Your task to perform on an android device: Open battery settings Image 0: 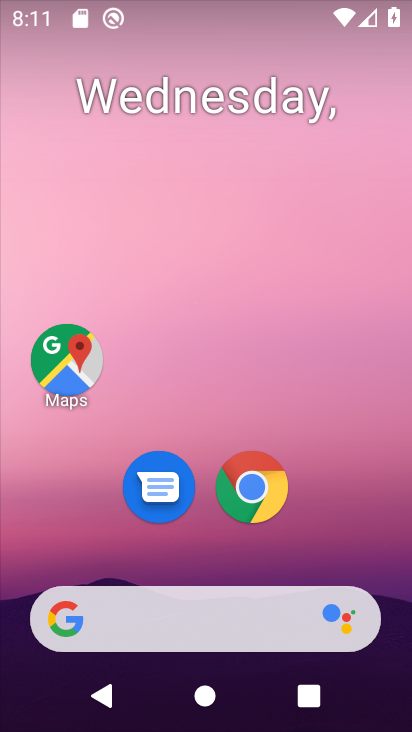
Step 0: drag from (333, 534) to (246, 112)
Your task to perform on an android device: Open battery settings Image 1: 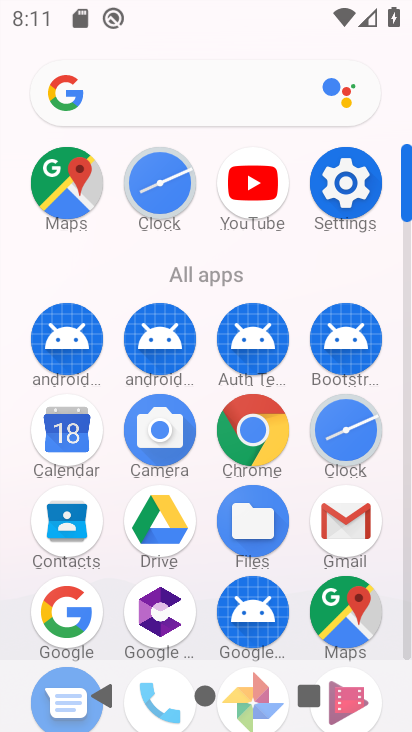
Step 1: click (346, 182)
Your task to perform on an android device: Open battery settings Image 2: 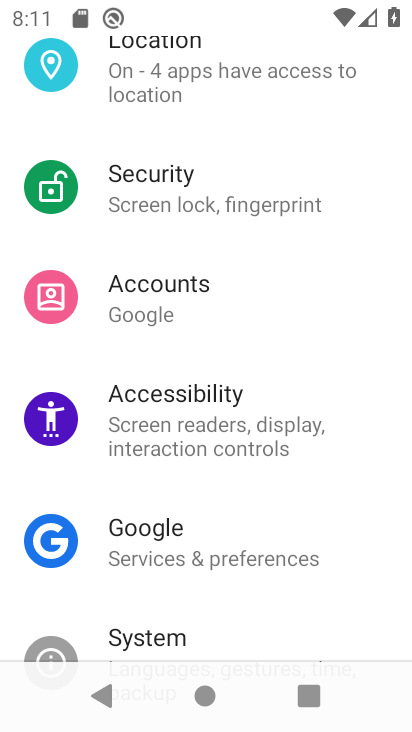
Step 2: drag from (250, 247) to (242, 357)
Your task to perform on an android device: Open battery settings Image 3: 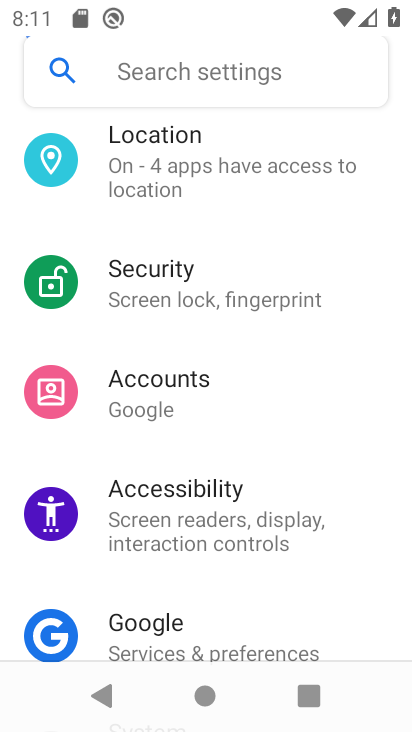
Step 3: drag from (231, 229) to (237, 348)
Your task to perform on an android device: Open battery settings Image 4: 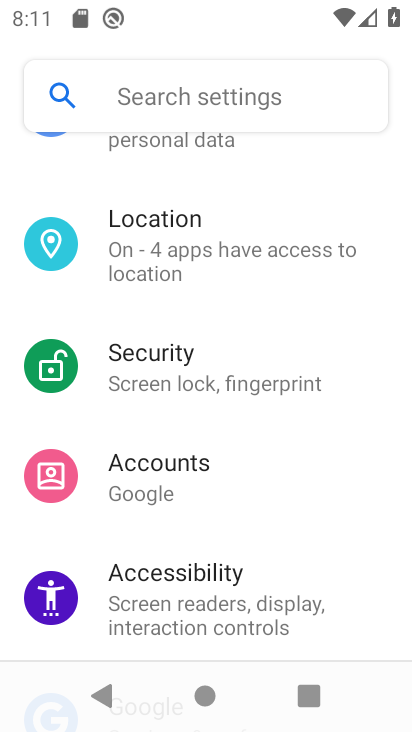
Step 4: drag from (276, 184) to (323, 368)
Your task to perform on an android device: Open battery settings Image 5: 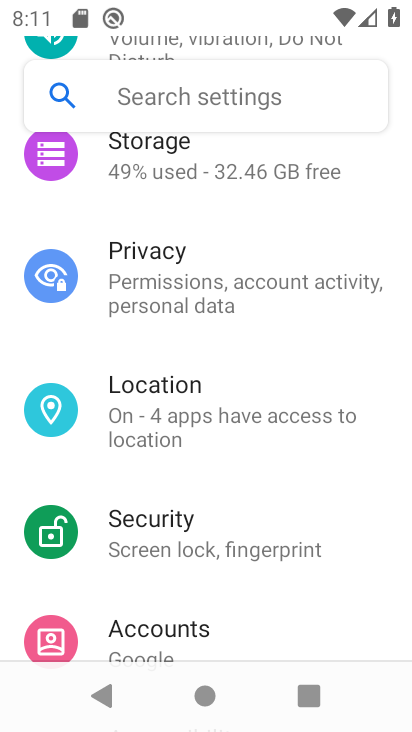
Step 5: drag from (255, 246) to (244, 360)
Your task to perform on an android device: Open battery settings Image 6: 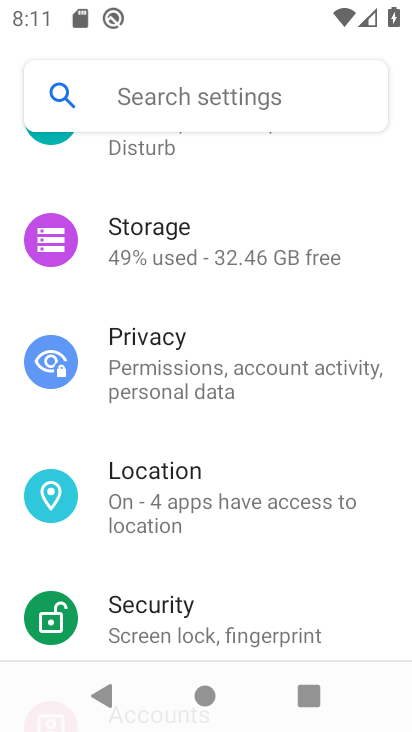
Step 6: drag from (233, 203) to (261, 398)
Your task to perform on an android device: Open battery settings Image 7: 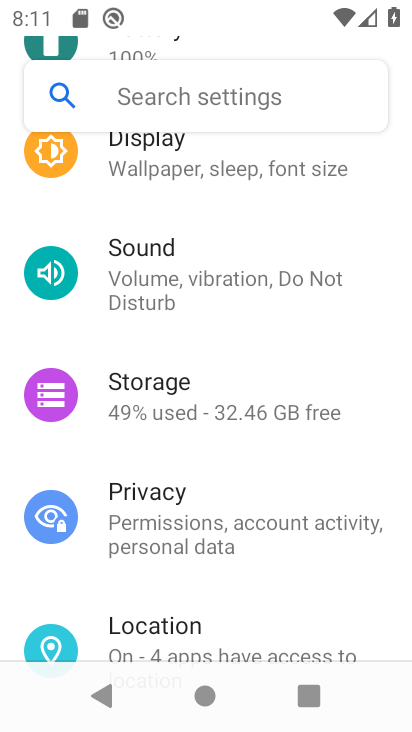
Step 7: drag from (212, 223) to (245, 355)
Your task to perform on an android device: Open battery settings Image 8: 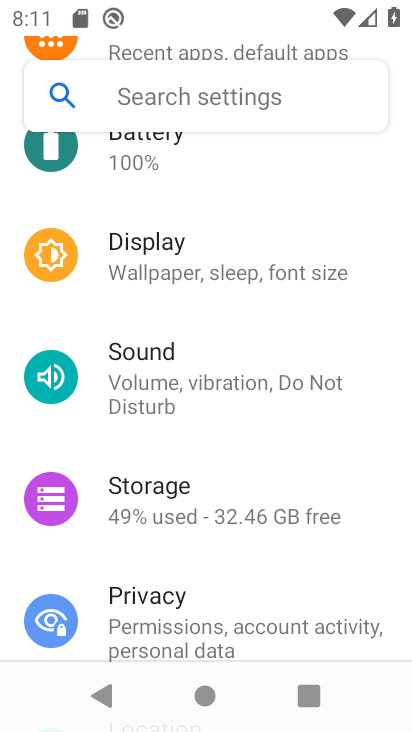
Step 8: drag from (238, 213) to (199, 387)
Your task to perform on an android device: Open battery settings Image 9: 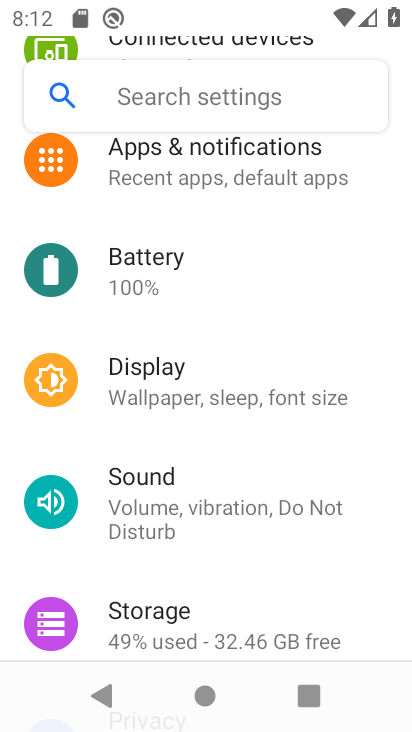
Step 9: click (146, 264)
Your task to perform on an android device: Open battery settings Image 10: 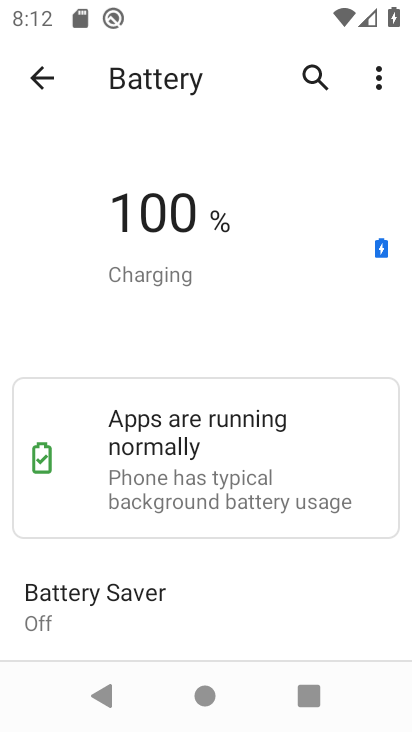
Step 10: task complete